Your task to perform on an android device: Show me popular videos on Youtube Image 0: 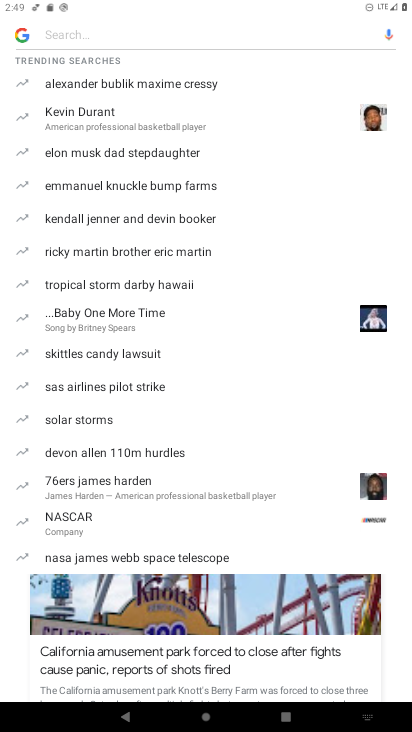
Step 0: press home button
Your task to perform on an android device: Show me popular videos on Youtube Image 1: 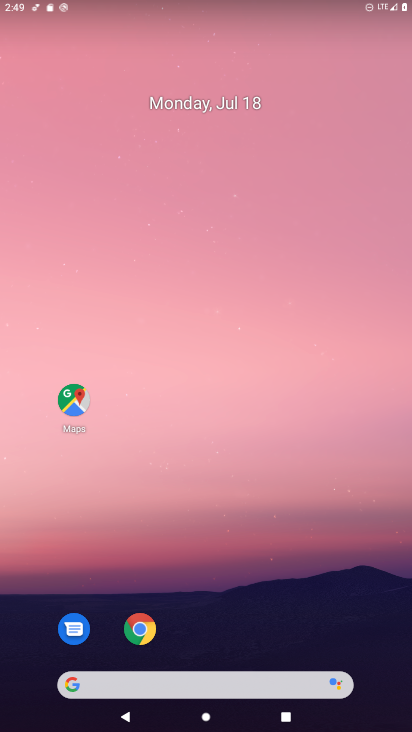
Step 1: drag from (118, 675) to (124, 425)
Your task to perform on an android device: Show me popular videos on Youtube Image 2: 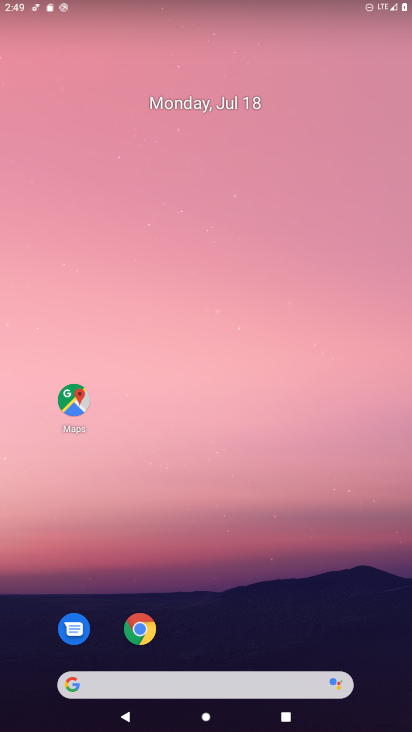
Step 2: drag from (227, 684) to (218, 291)
Your task to perform on an android device: Show me popular videos on Youtube Image 3: 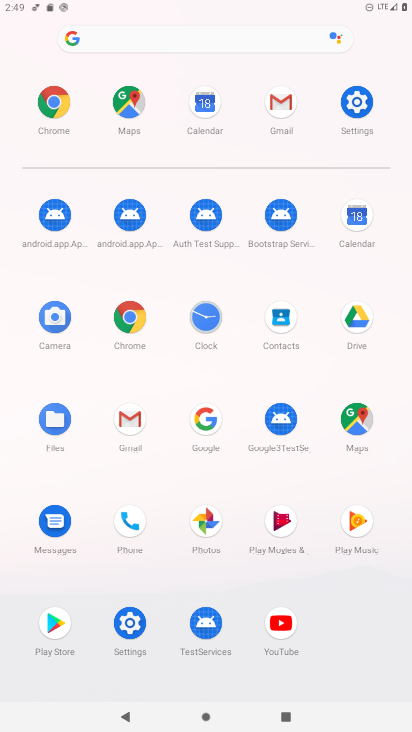
Step 3: click (309, 628)
Your task to perform on an android device: Show me popular videos on Youtube Image 4: 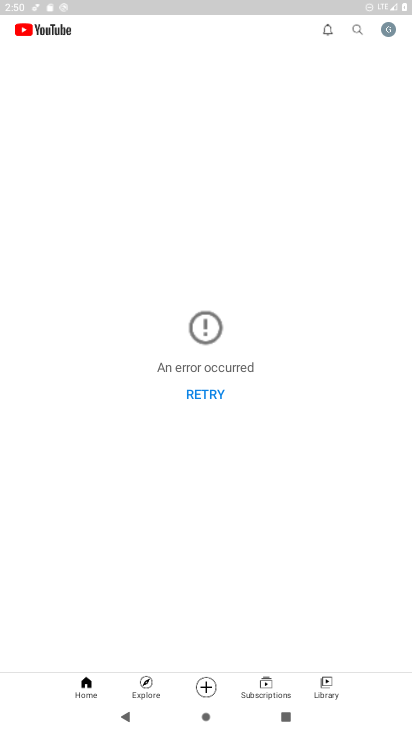
Step 4: click (81, 691)
Your task to perform on an android device: Show me popular videos on Youtube Image 5: 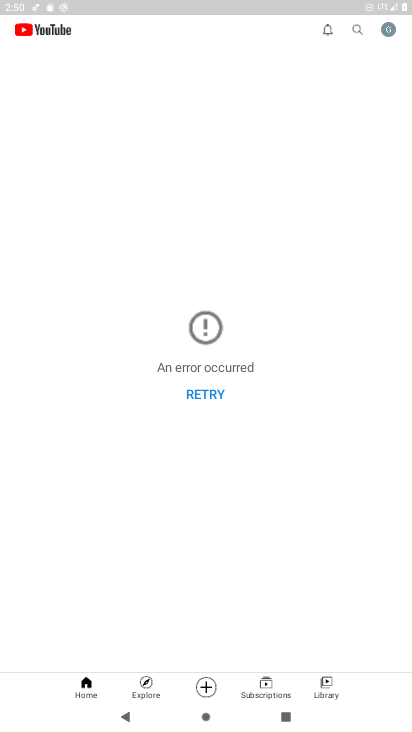
Step 5: task complete